Your task to perform on an android device: Go to settings Image 0: 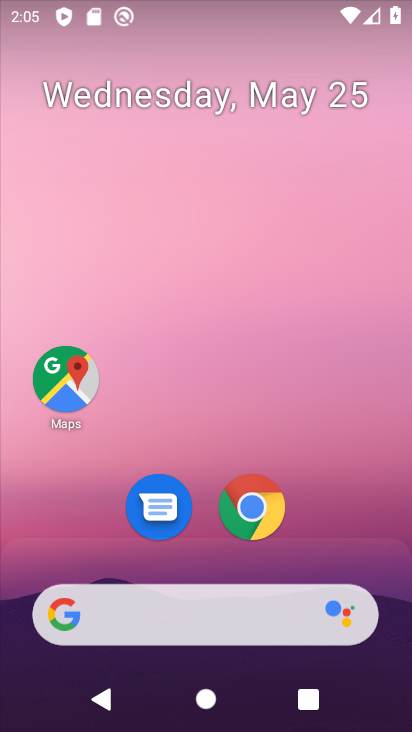
Step 0: drag from (180, 588) to (202, 151)
Your task to perform on an android device: Go to settings Image 1: 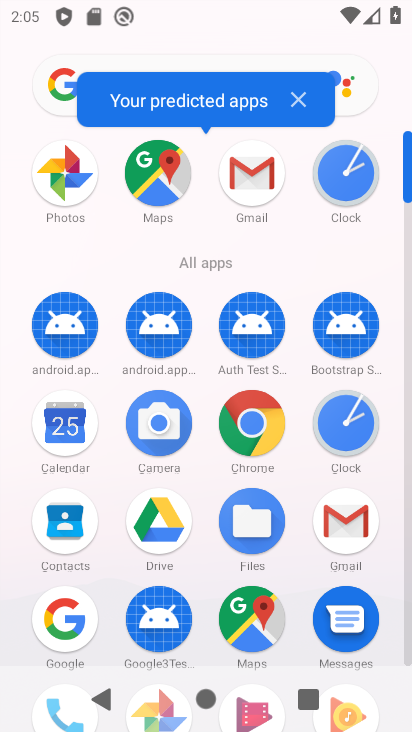
Step 1: drag from (199, 489) to (273, 120)
Your task to perform on an android device: Go to settings Image 2: 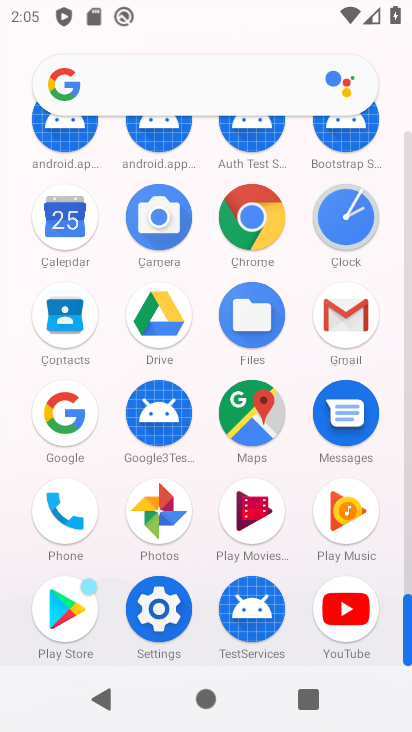
Step 2: click (155, 614)
Your task to perform on an android device: Go to settings Image 3: 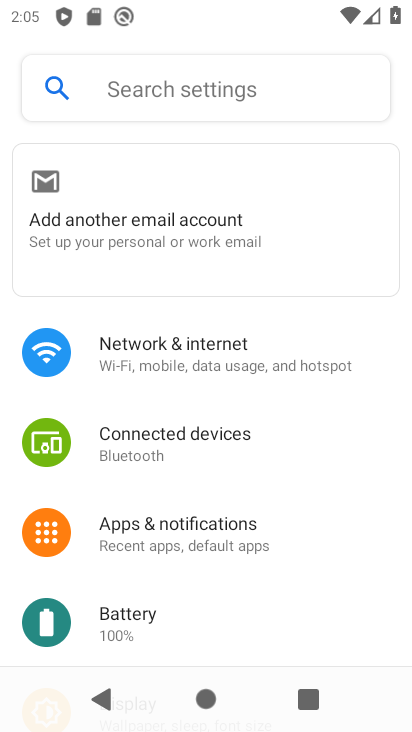
Step 3: task complete